Your task to perform on an android device: Open Google Chrome Image 0: 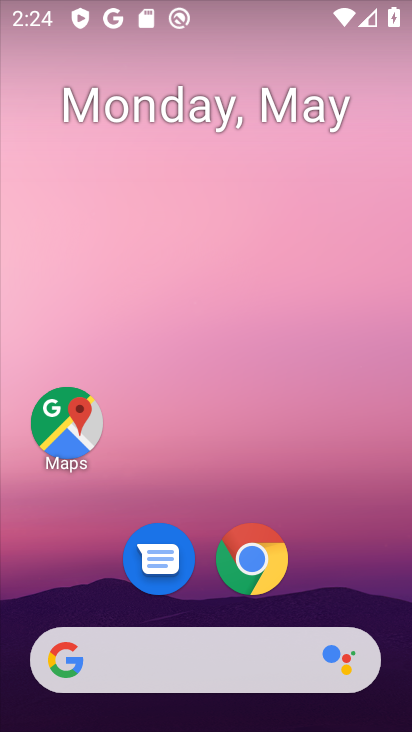
Step 0: click (255, 556)
Your task to perform on an android device: Open Google Chrome Image 1: 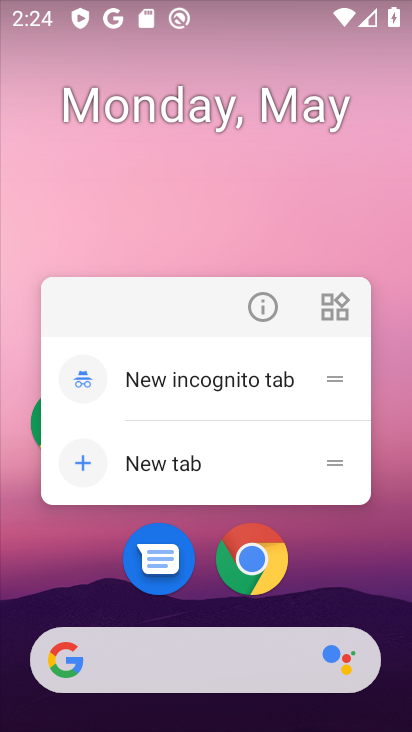
Step 1: click (255, 555)
Your task to perform on an android device: Open Google Chrome Image 2: 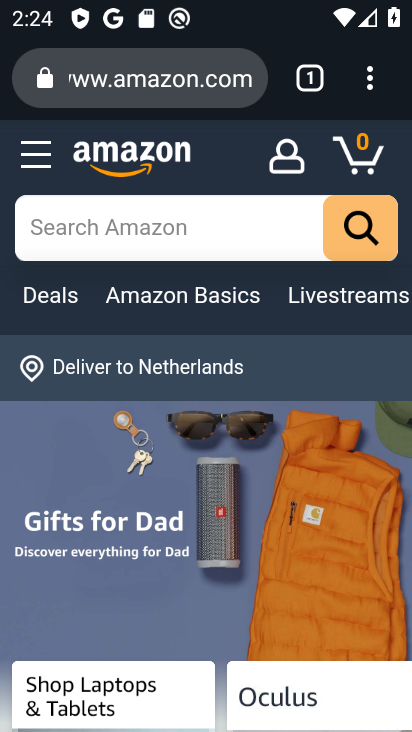
Step 2: task complete